Your task to perform on an android device: open a new tab in the chrome app Image 0: 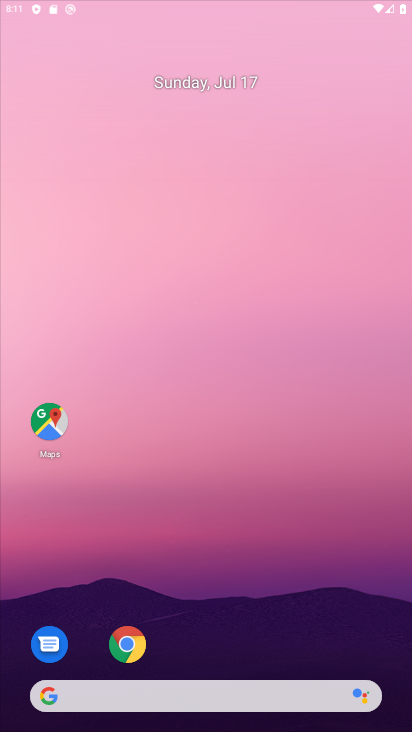
Step 0: press back button
Your task to perform on an android device: open a new tab in the chrome app Image 1: 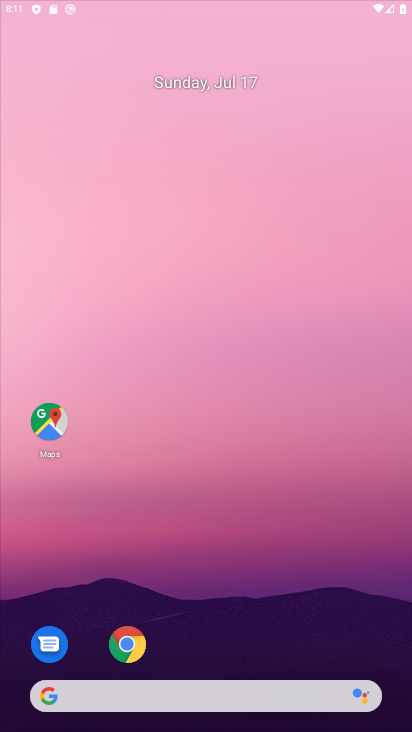
Step 1: click (274, 155)
Your task to perform on an android device: open a new tab in the chrome app Image 2: 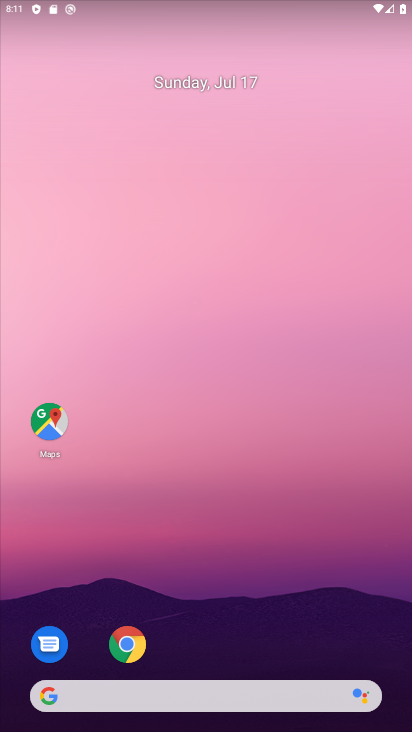
Step 2: drag from (236, 674) to (233, 89)
Your task to perform on an android device: open a new tab in the chrome app Image 3: 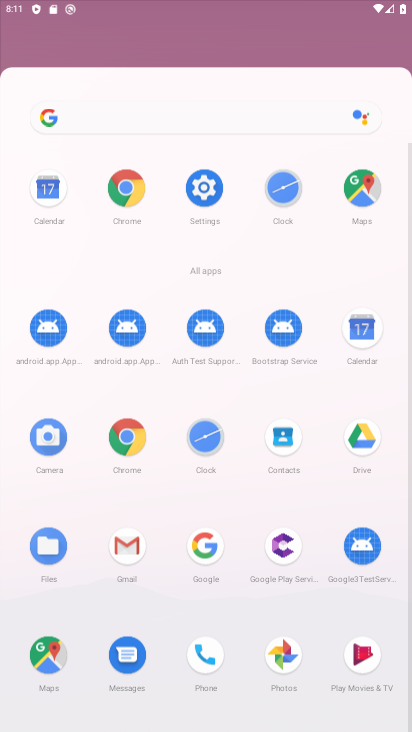
Step 3: drag from (211, 433) to (222, 45)
Your task to perform on an android device: open a new tab in the chrome app Image 4: 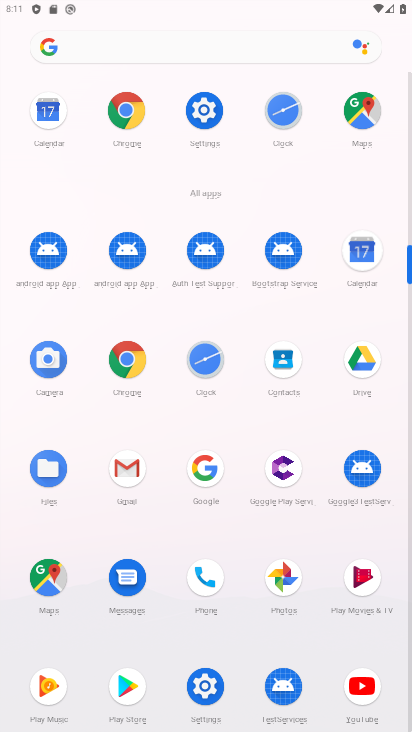
Step 4: click (114, 108)
Your task to perform on an android device: open a new tab in the chrome app Image 5: 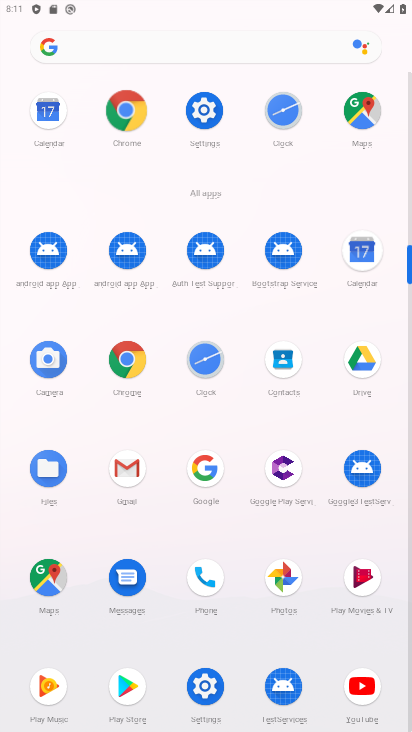
Step 5: click (124, 110)
Your task to perform on an android device: open a new tab in the chrome app Image 6: 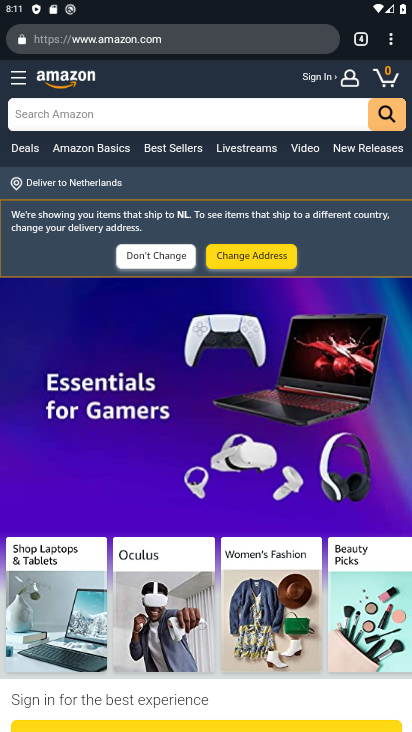
Step 6: drag from (386, 41) to (240, 81)
Your task to perform on an android device: open a new tab in the chrome app Image 7: 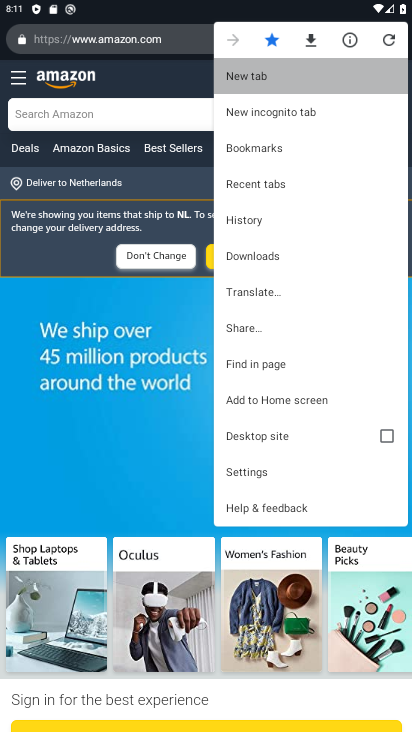
Step 7: click (240, 81)
Your task to perform on an android device: open a new tab in the chrome app Image 8: 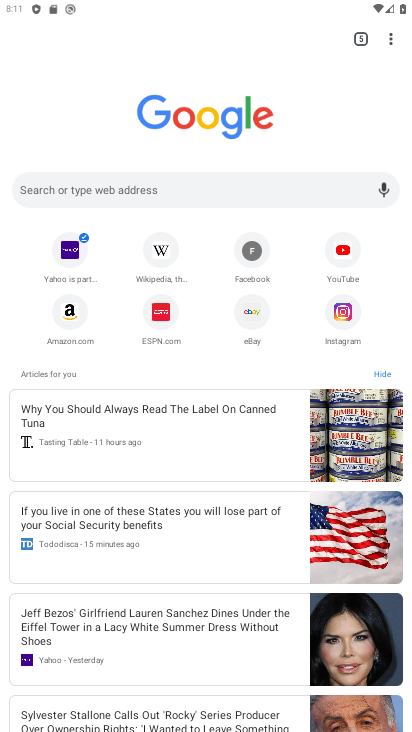
Step 8: task complete